Your task to perform on an android device: Open the stopwatch Image 0: 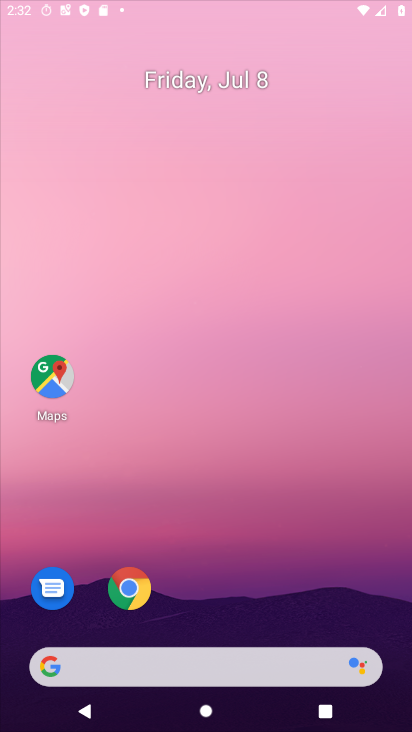
Step 0: press home button
Your task to perform on an android device: Open the stopwatch Image 1: 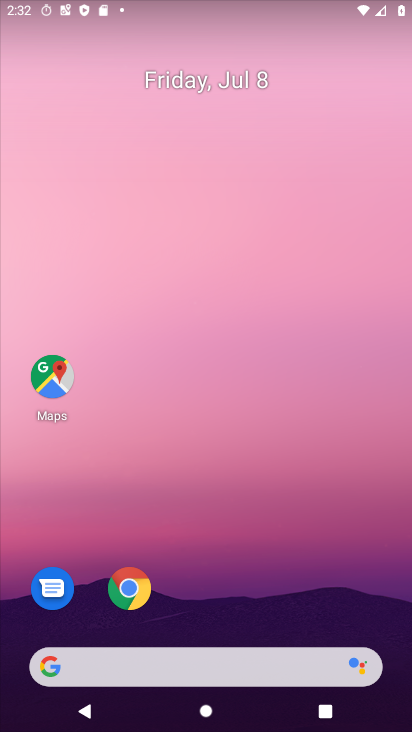
Step 1: drag from (265, 625) to (236, 3)
Your task to perform on an android device: Open the stopwatch Image 2: 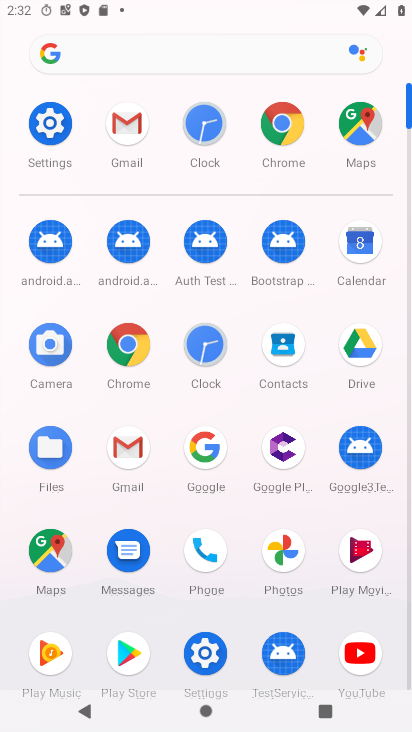
Step 2: click (203, 116)
Your task to perform on an android device: Open the stopwatch Image 3: 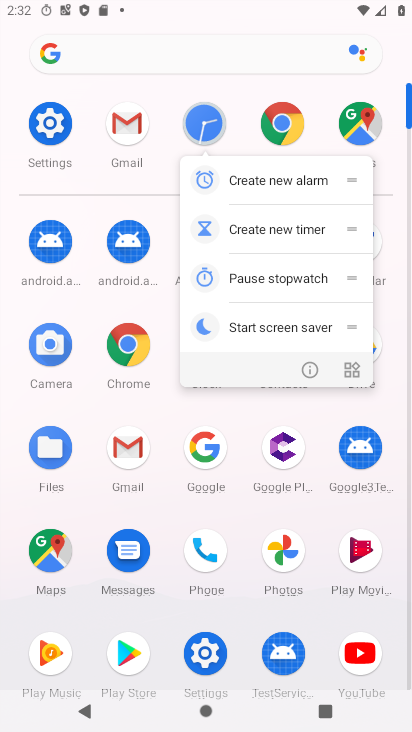
Step 3: click (206, 130)
Your task to perform on an android device: Open the stopwatch Image 4: 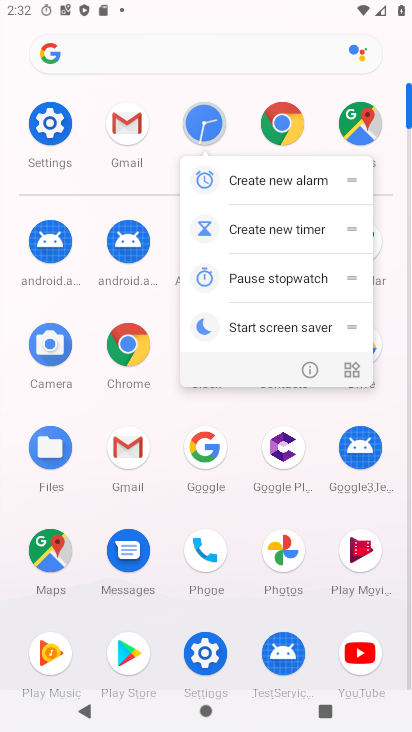
Step 4: click (198, 113)
Your task to perform on an android device: Open the stopwatch Image 5: 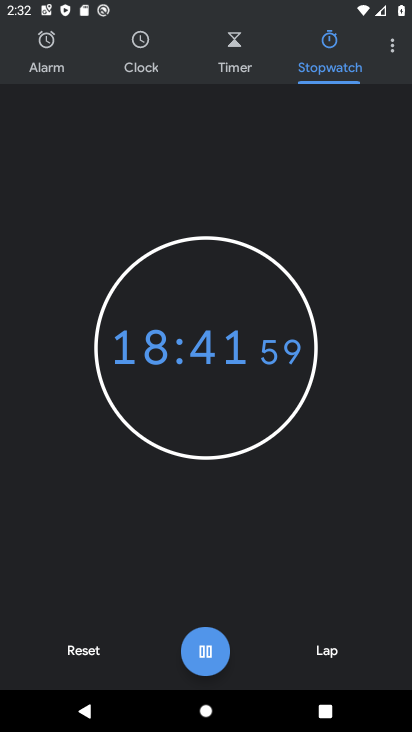
Step 5: click (335, 44)
Your task to perform on an android device: Open the stopwatch Image 6: 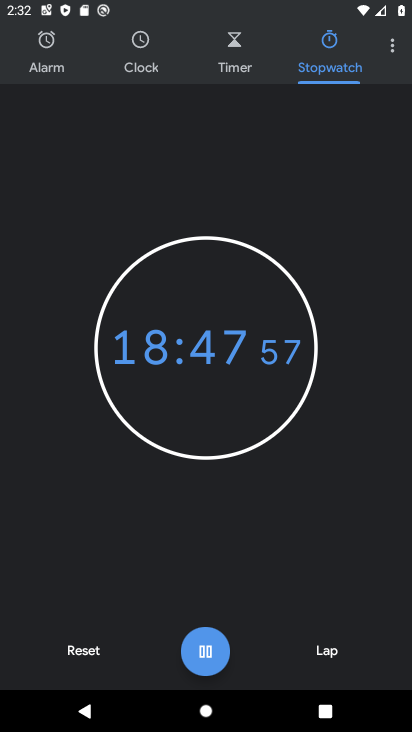
Step 6: task complete